Your task to perform on an android device: add a contact Image 0: 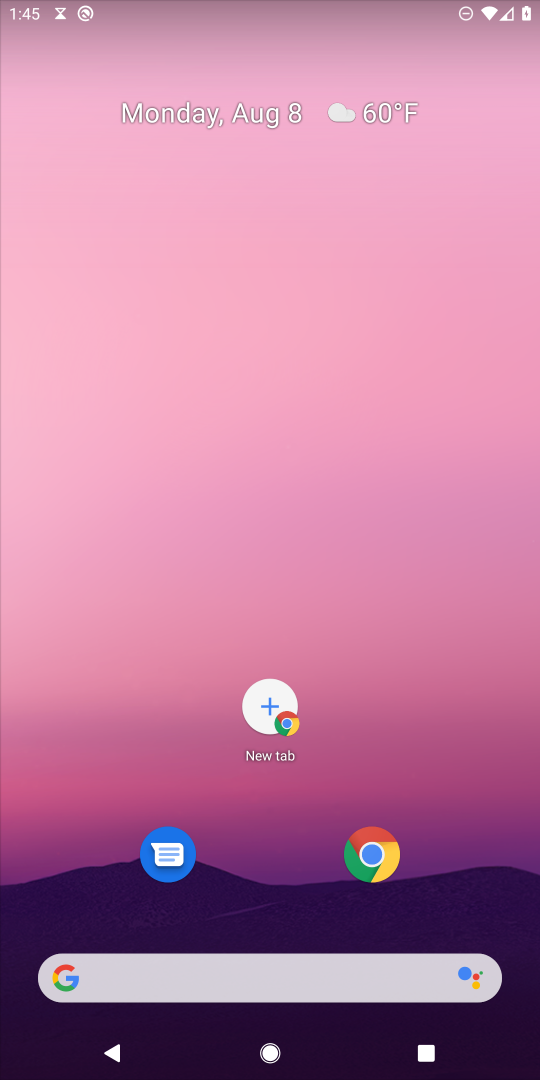
Step 0: press home button
Your task to perform on an android device: add a contact Image 1: 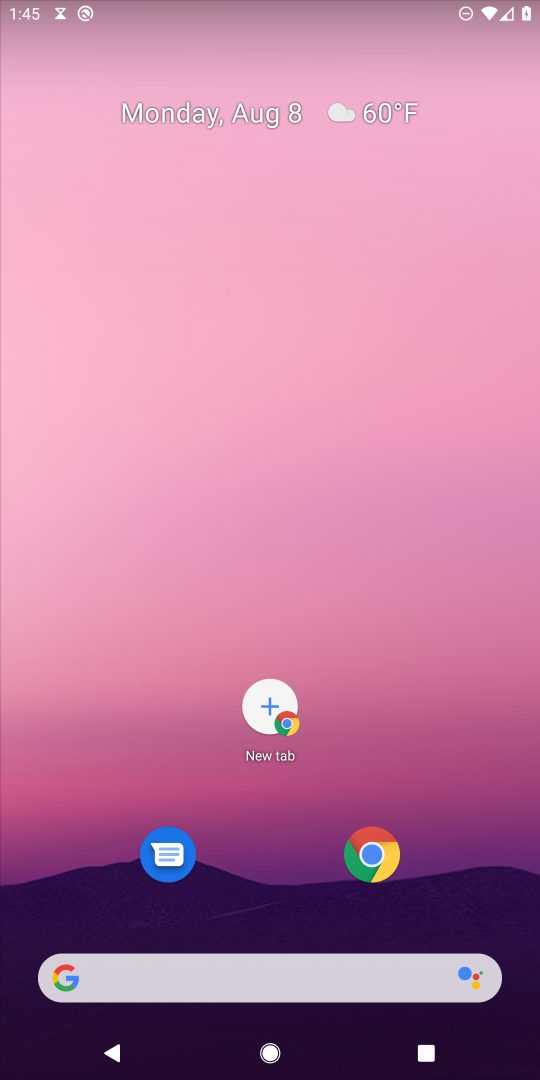
Step 1: drag from (461, 882) to (523, 662)
Your task to perform on an android device: add a contact Image 2: 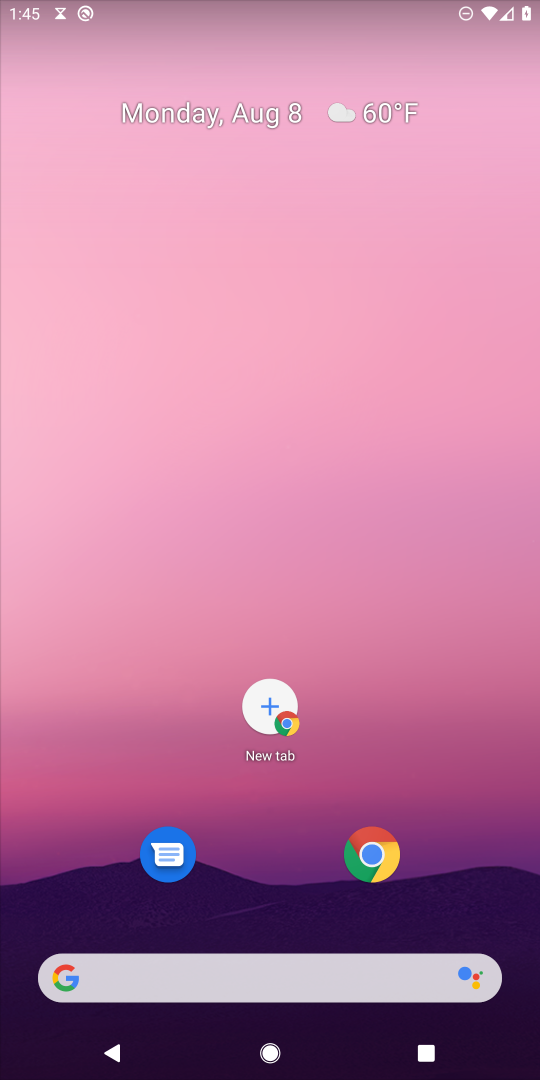
Step 2: drag from (377, 164) to (522, 304)
Your task to perform on an android device: add a contact Image 3: 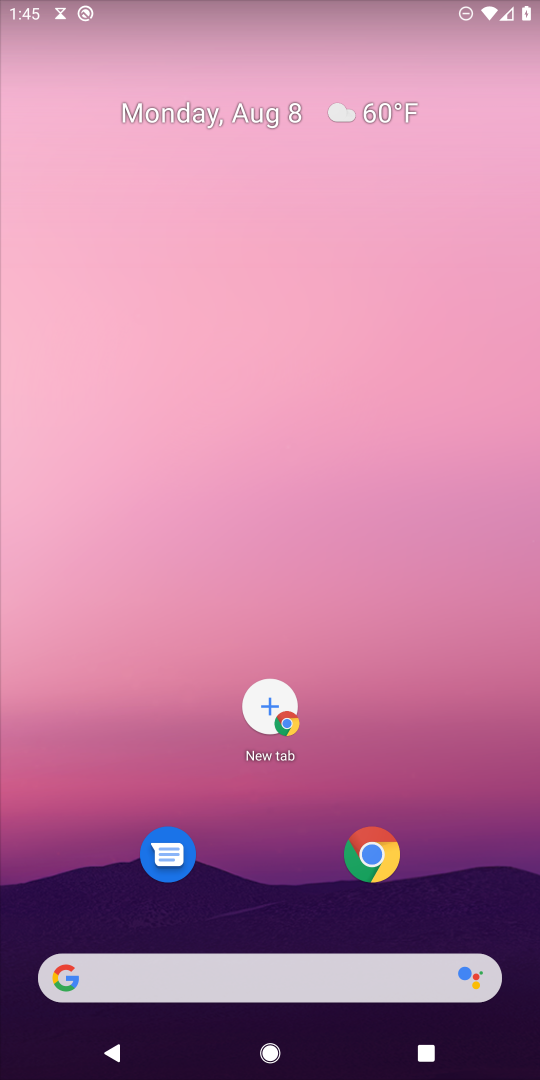
Step 3: drag from (441, 843) to (537, 498)
Your task to perform on an android device: add a contact Image 4: 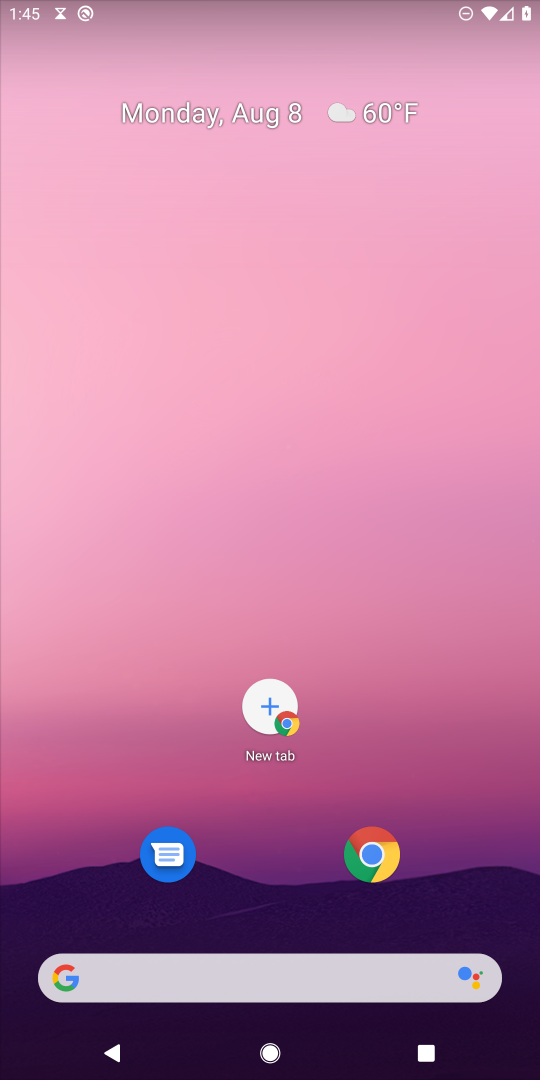
Step 4: drag from (465, 834) to (311, 23)
Your task to perform on an android device: add a contact Image 5: 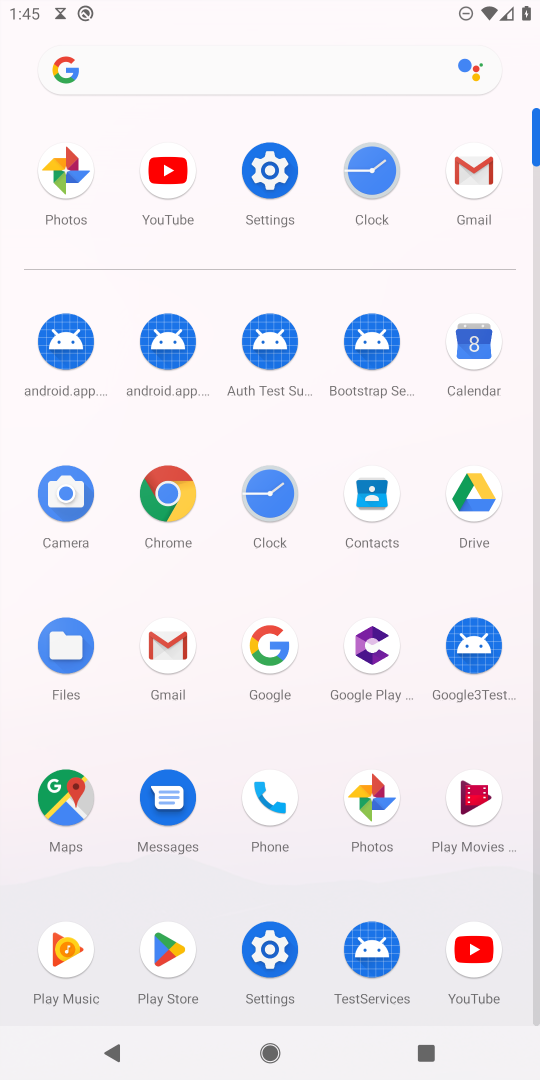
Step 5: click (379, 492)
Your task to perform on an android device: add a contact Image 6: 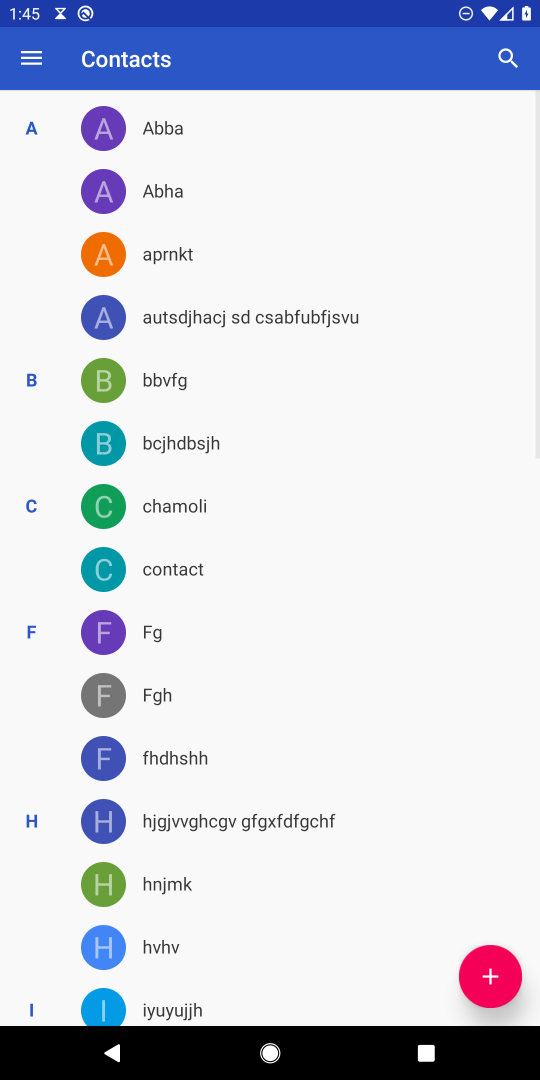
Step 6: click (474, 975)
Your task to perform on an android device: add a contact Image 7: 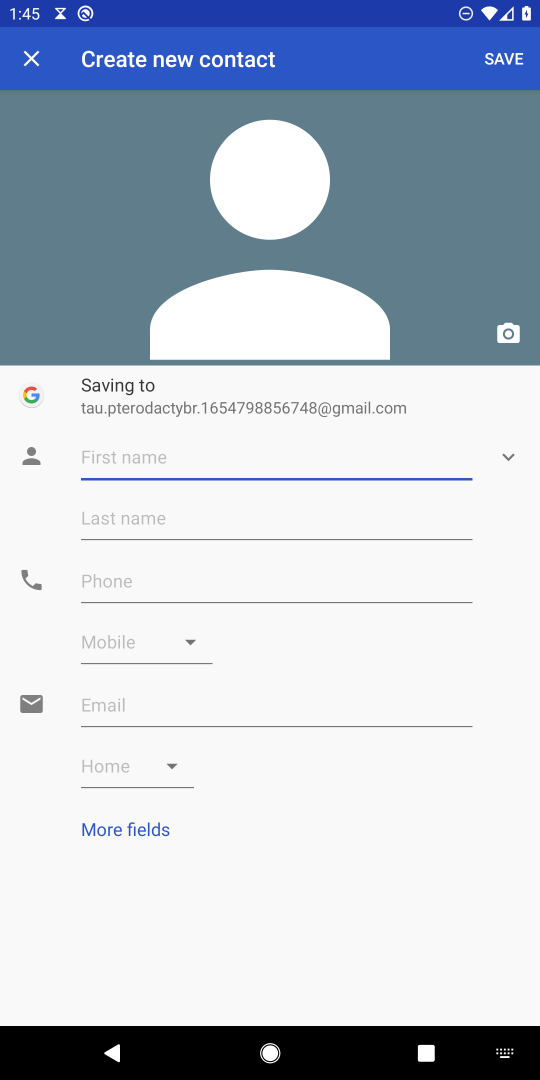
Step 7: type "feeffefefefefe"
Your task to perform on an android device: add a contact Image 8: 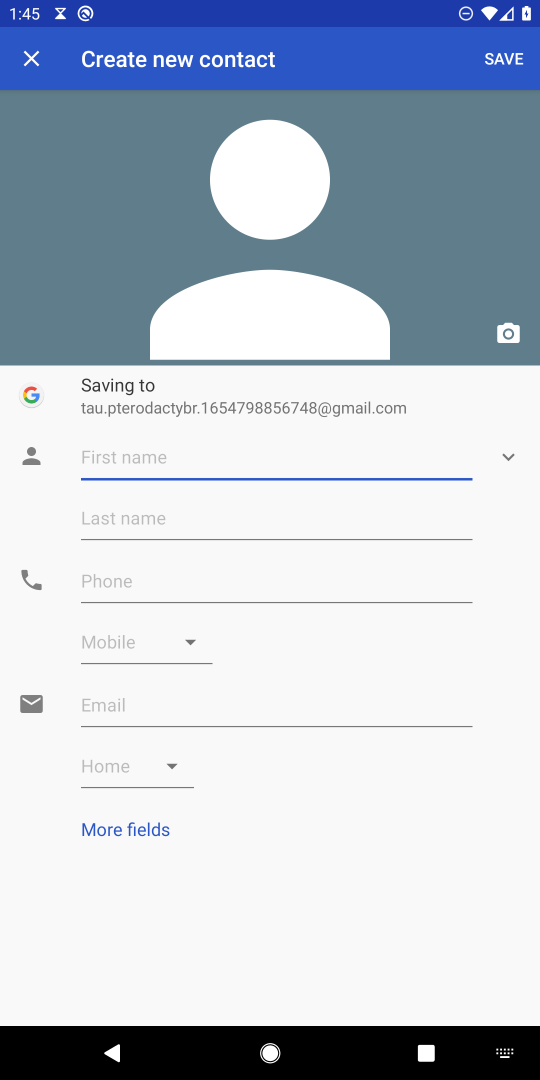
Step 8: click (198, 461)
Your task to perform on an android device: add a contact Image 9: 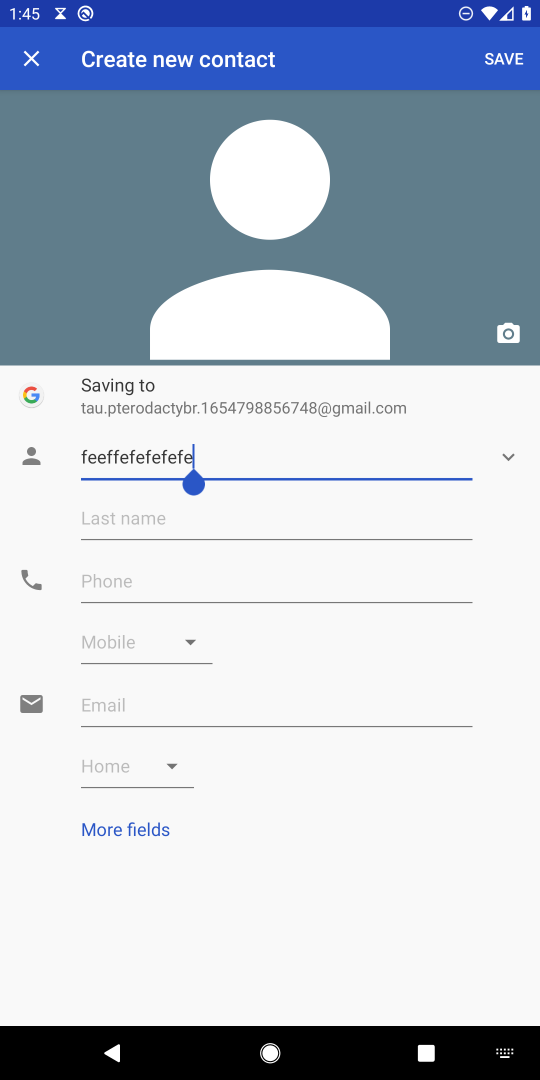
Step 9: click (166, 576)
Your task to perform on an android device: add a contact Image 10: 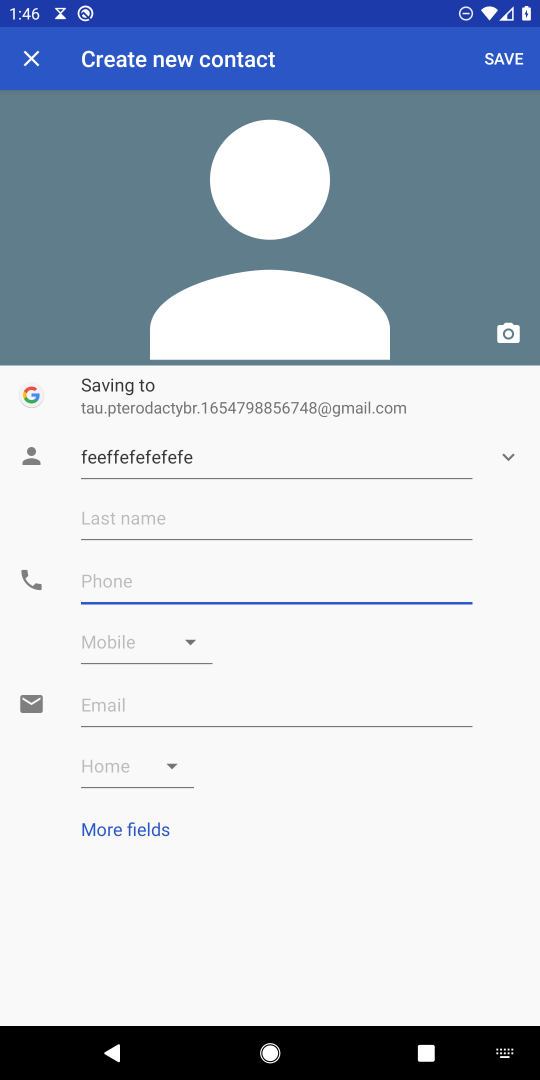
Step 10: type "2445556633333"
Your task to perform on an android device: add a contact Image 11: 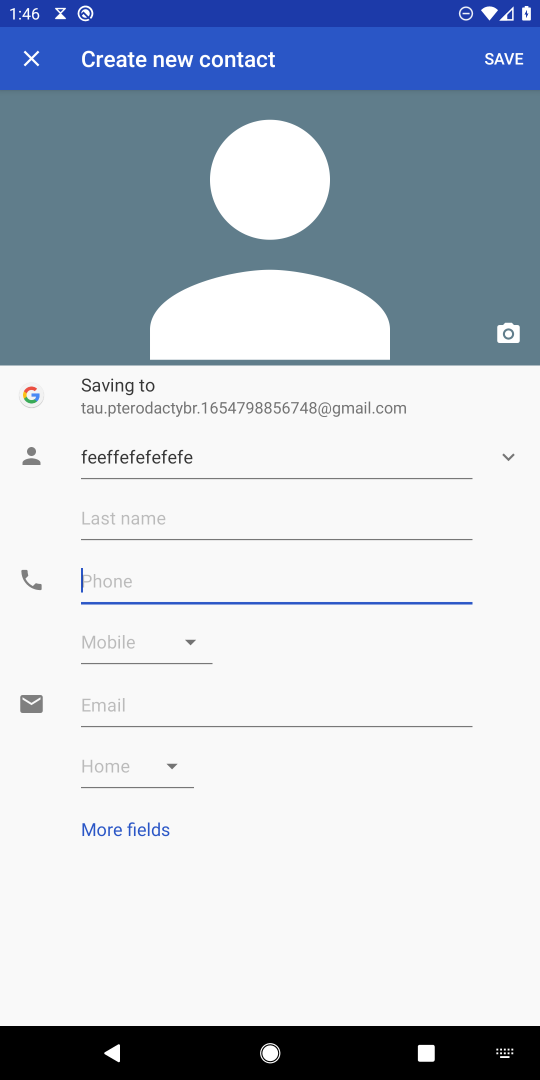
Step 11: click (180, 573)
Your task to perform on an android device: add a contact Image 12: 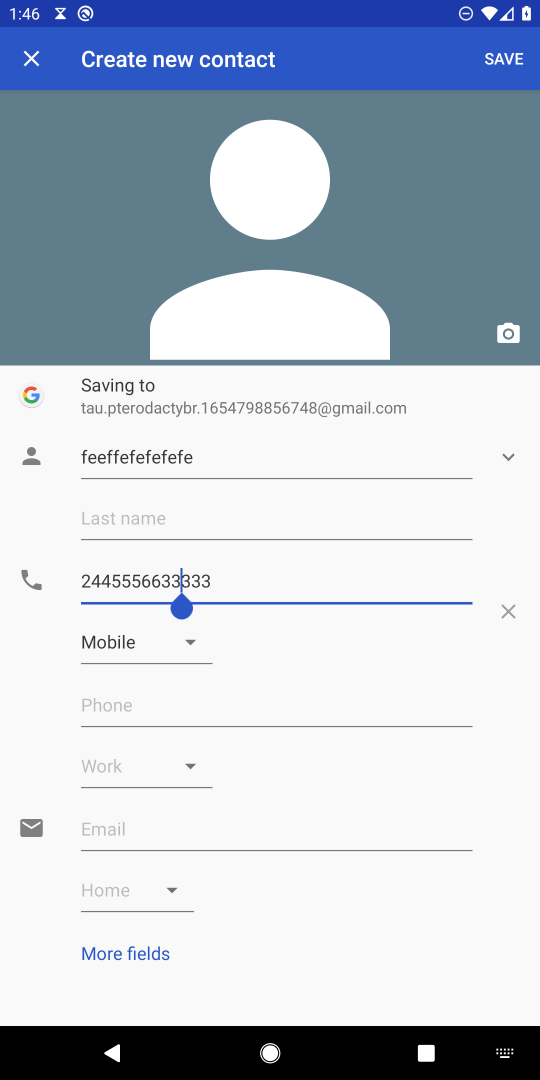
Step 12: click (493, 62)
Your task to perform on an android device: add a contact Image 13: 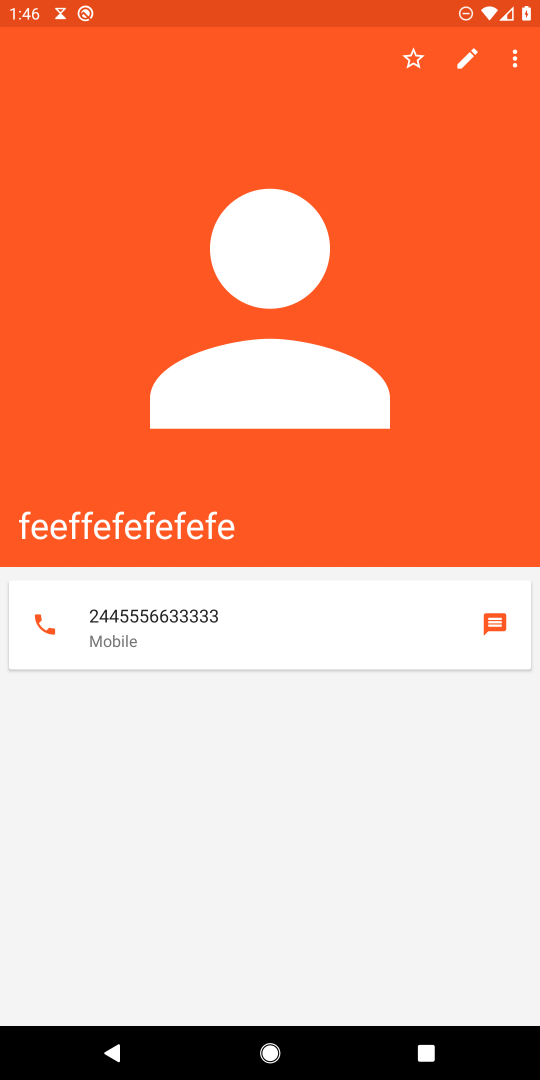
Step 13: task complete